Your task to perform on an android device: turn vacation reply on in the gmail app Image 0: 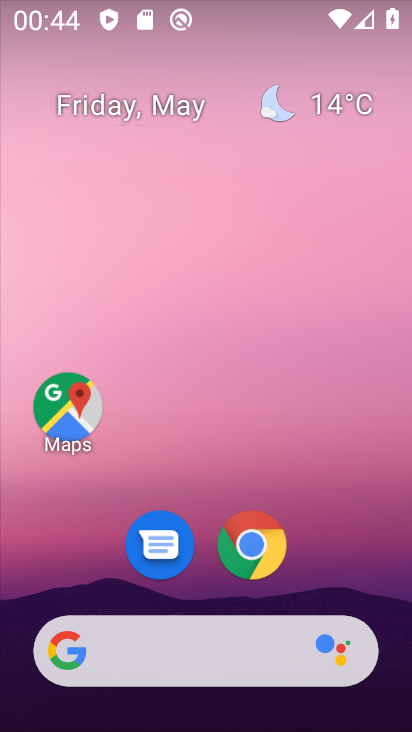
Step 0: drag from (293, 586) to (278, 0)
Your task to perform on an android device: turn vacation reply on in the gmail app Image 1: 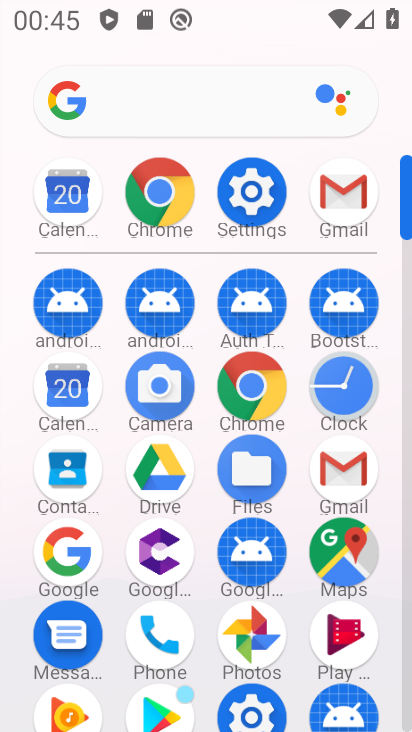
Step 1: click (342, 211)
Your task to perform on an android device: turn vacation reply on in the gmail app Image 2: 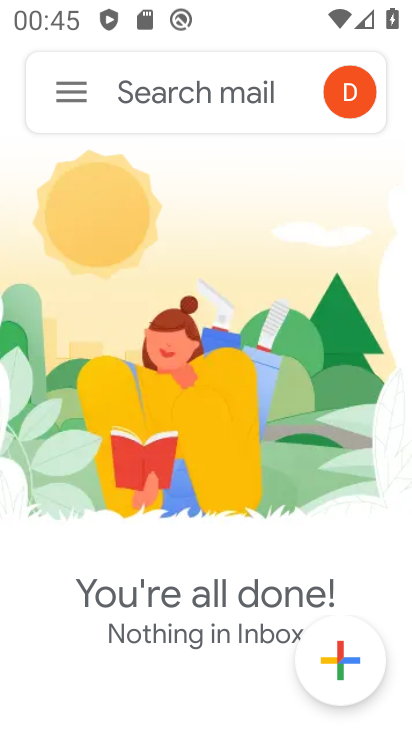
Step 2: click (72, 91)
Your task to perform on an android device: turn vacation reply on in the gmail app Image 3: 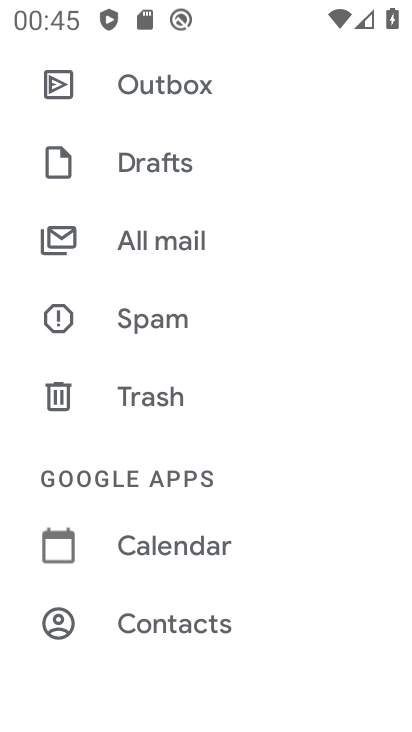
Step 3: drag from (225, 597) to (199, 171)
Your task to perform on an android device: turn vacation reply on in the gmail app Image 4: 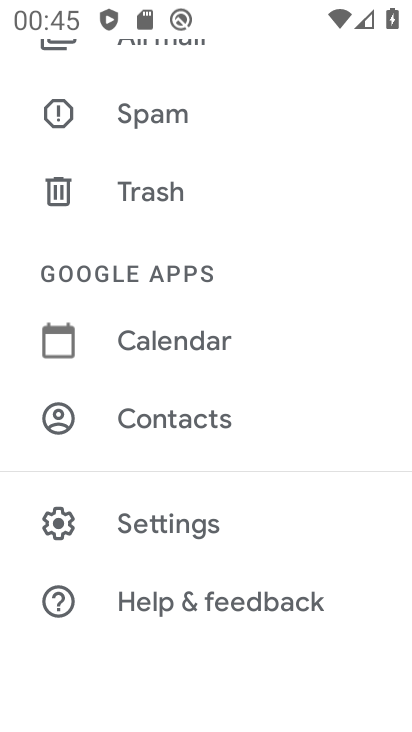
Step 4: click (200, 520)
Your task to perform on an android device: turn vacation reply on in the gmail app Image 5: 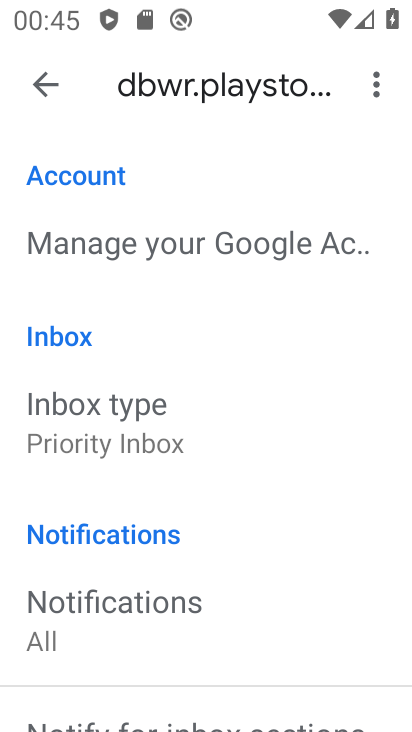
Step 5: drag from (243, 604) to (157, 7)
Your task to perform on an android device: turn vacation reply on in the gmail app Image 6: 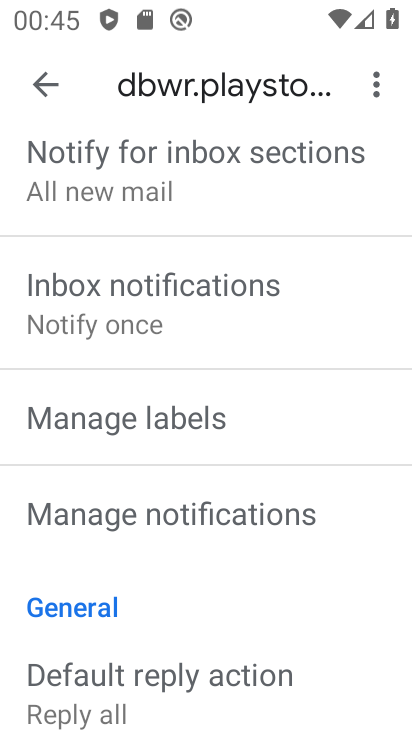
Step 6: drag from (275, 703) to (226, 67)
Your task to perform on an android device: turn vacation reply on in the gmail app Image 7: 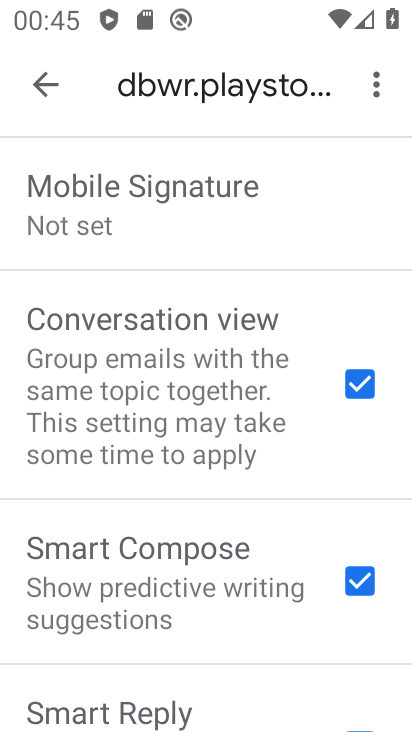
Step 7: drag from (252, 568) to (189, 13)
Your task to perform on an android device: turn vacation reply on in the gmail app Image 8: 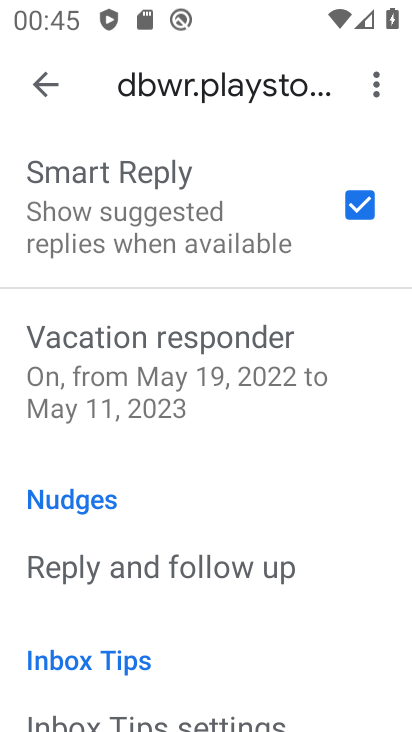
Step 8: click (232, 370)
Your task to perform on an android device: turn vacation reply on in the gmail app Image 9: 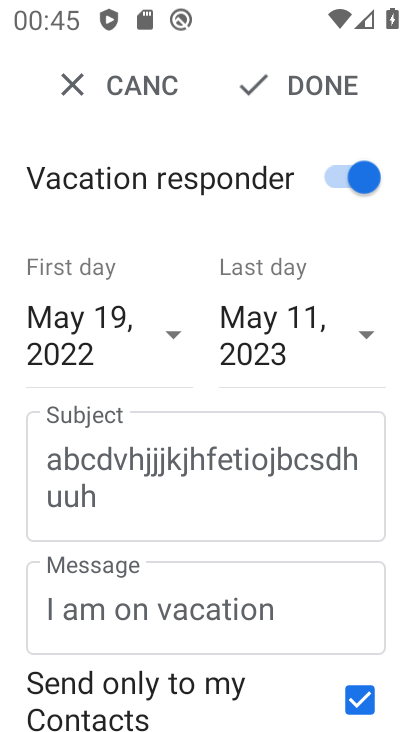
Step 9: task complete